Your task to perform on an android device: turn on notifications settings in the gmail app Image 0: 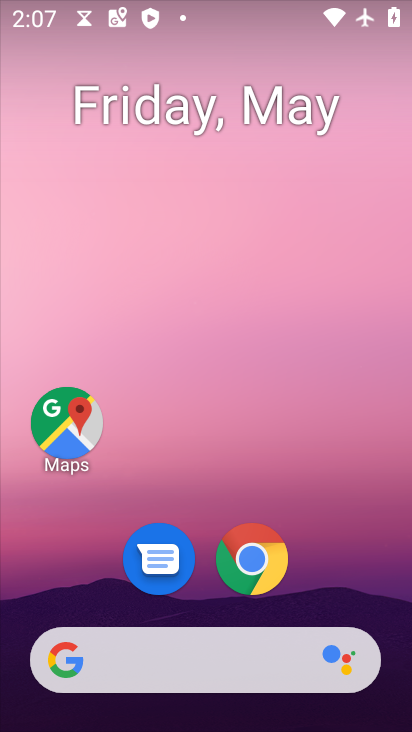
Step 0: drag from (319, 575) to (318, 192)
Your task to perform on an android device: turn on notifications settings in the gmail app Image 1: 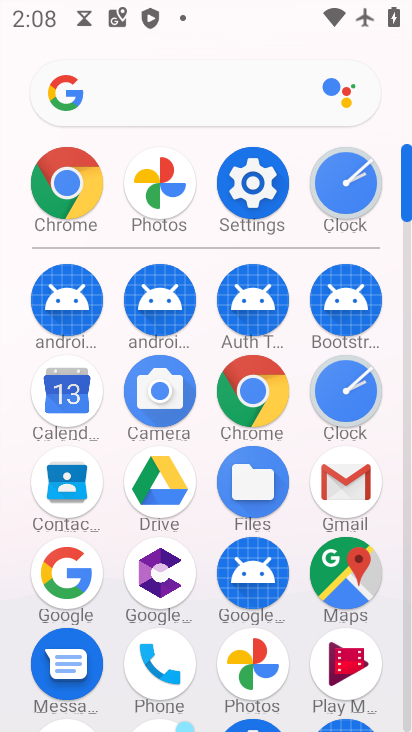
Step 1: click (372, 475)
Your task to perform on an android device: turn on notifications settings in the gmail app Image 2: 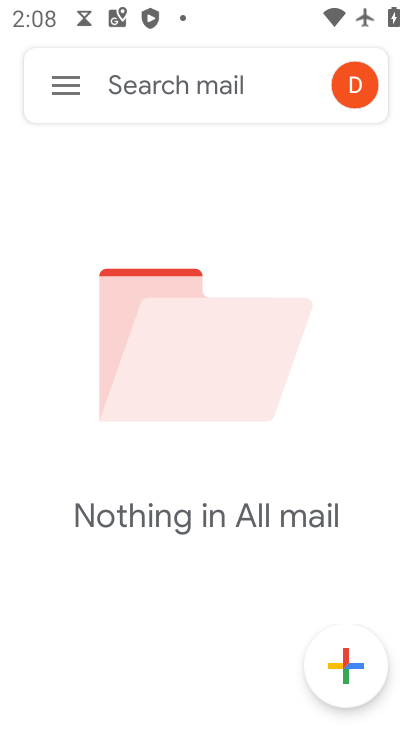
Step 2: click (65, 85)
Your task to perform on an android device: turn on notifications settings in the gmail app Image 3: 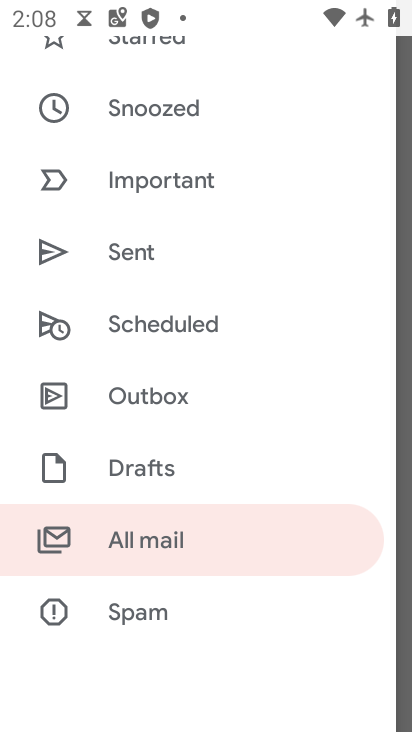
Step 3: drag from (156, 580) to (220, 174)
Your task to perform on an android device: turn on notifications settings in the gmail app Image 4: 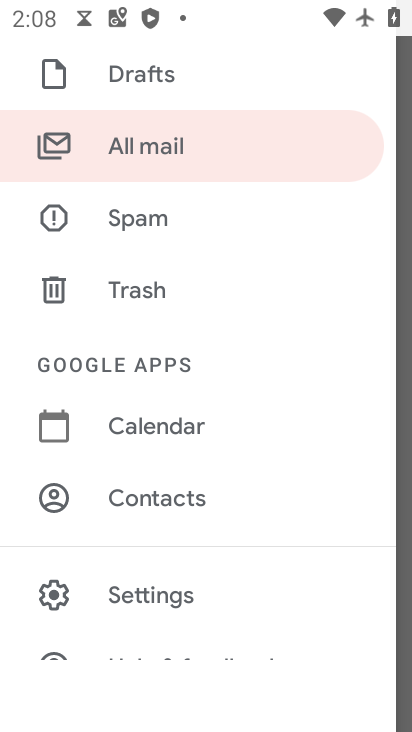
Step 4: click (141, 601)
Your task to perform on an android device: turn on notifications settings in the gmail app Image 5: 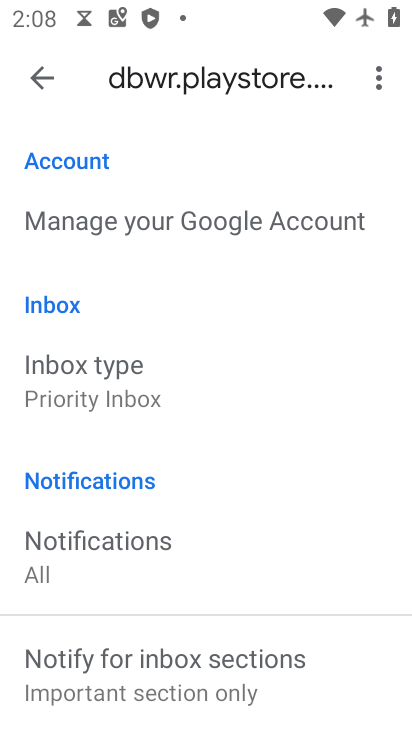
Step 5: click (179, 573)
Your task to perform on an android device: turn on notifications settings in the gmail app Image 6: 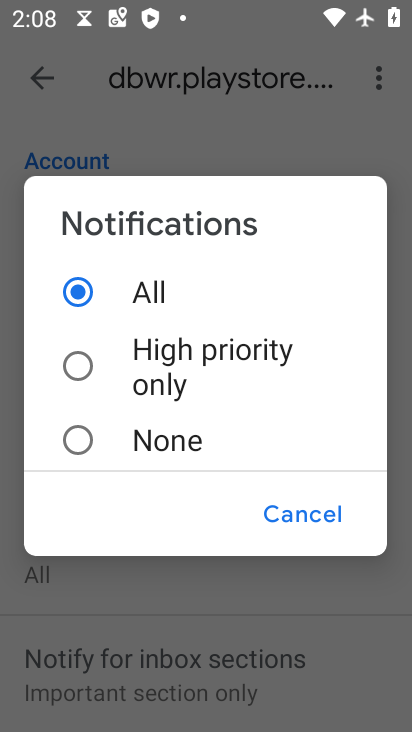
Step 6: task complete